Your task to perform on an android device: turn vacation reply on in the gmail app Image 0: 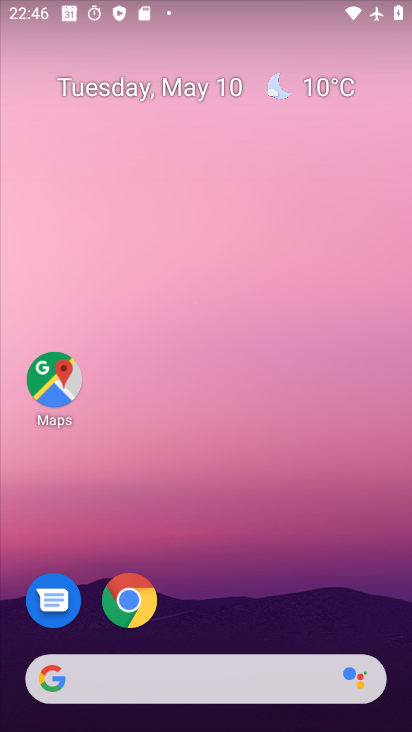
Step 0: drag from (223, 591) to (342, 76)
Your task to perform on an android device: turn vacation reply on in the gmail app Image 1: 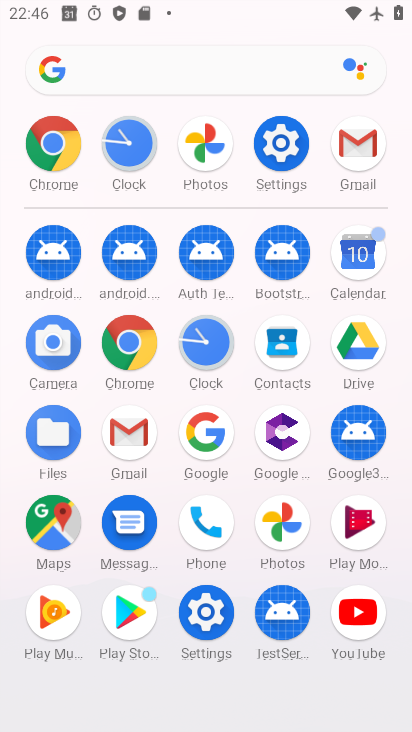
Step 1: click (360, 151)
Your task to perform on an android device: turn vacation reply on in the gmail app Image 2: 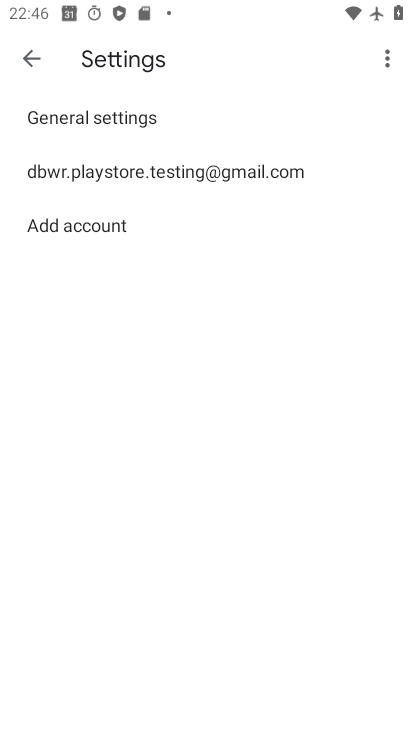
Step 2: click (188, 169)
Your task to perform on an android device: turn vacation reply on in the gmail app Image 3: 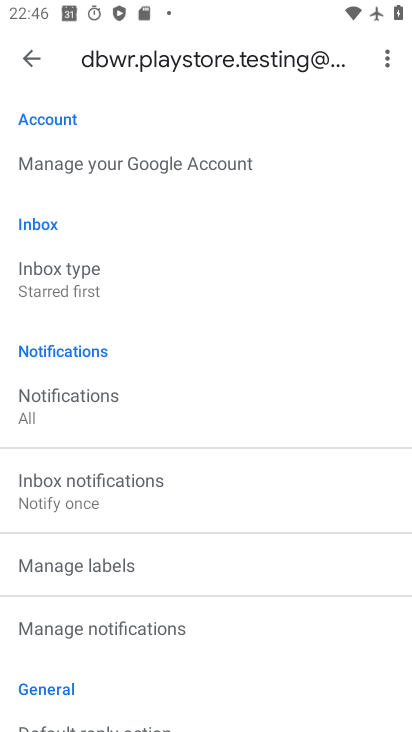
Step 3: drag from (138, 568) to (183, 211)
Your task to perform on an android device: turn vacation reply on in the gmail app Image 4: 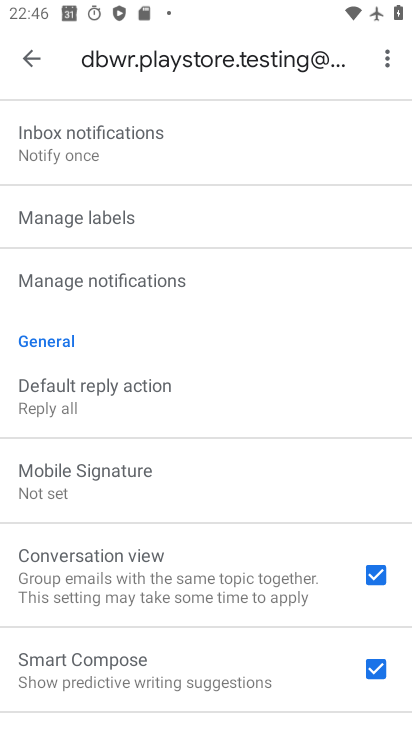
Step 4: drag from (138, 656) to (189, 253)
Your task to perform on an android device: turn vacation reply on in the gmail app Image 5: 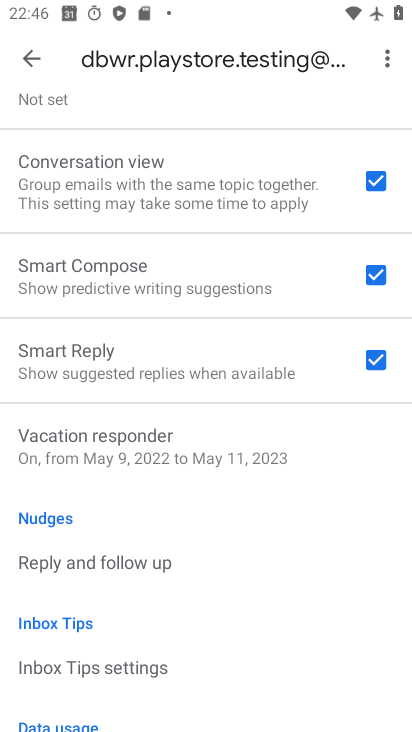
Step 5: click (134, 449)
Your task to perform on an android device: turn vacation reply on in the gmail app Image 6: 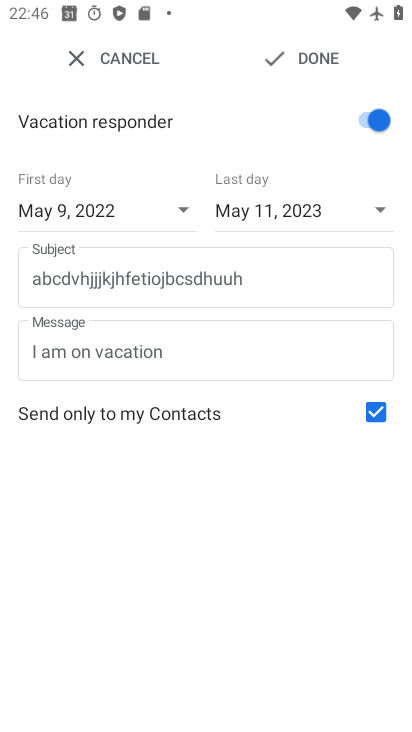
Step 6: task complete